Your task to perform on an android device: turn on translation in the chrome app Image 0: 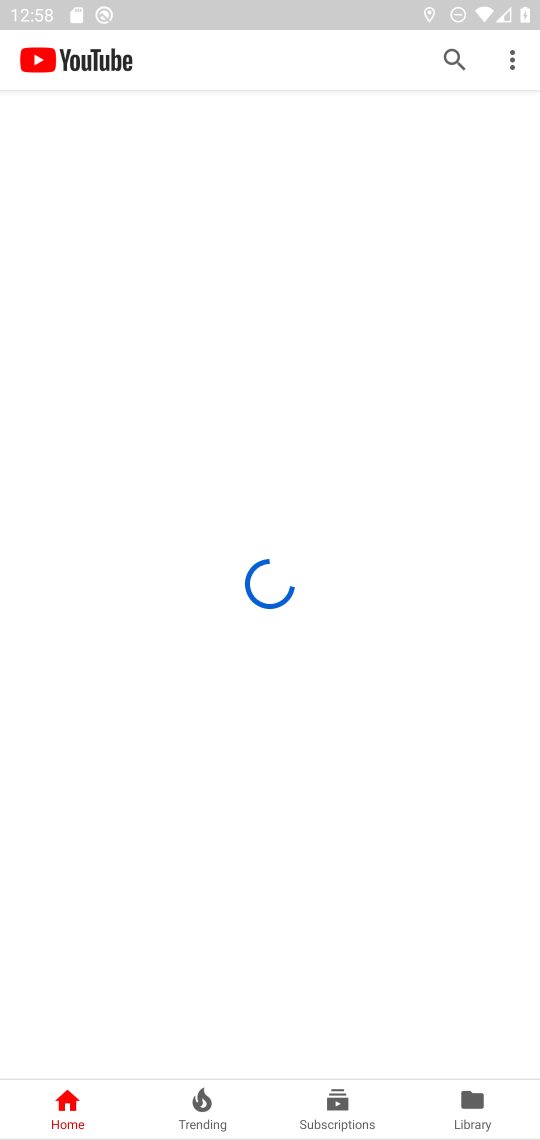
Step 0: press home button
Your task to perform on an android device: turn on translation in the chrome app Image 1: 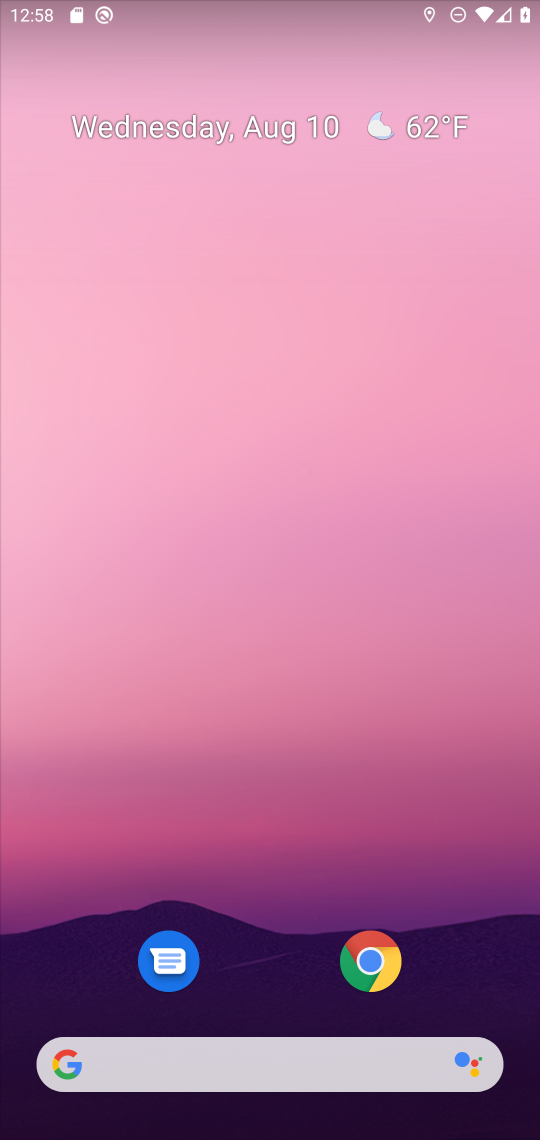
Step 1: click (379, 961)
Your task to perform on an android device: turn on translation in the chrome app Image 2: 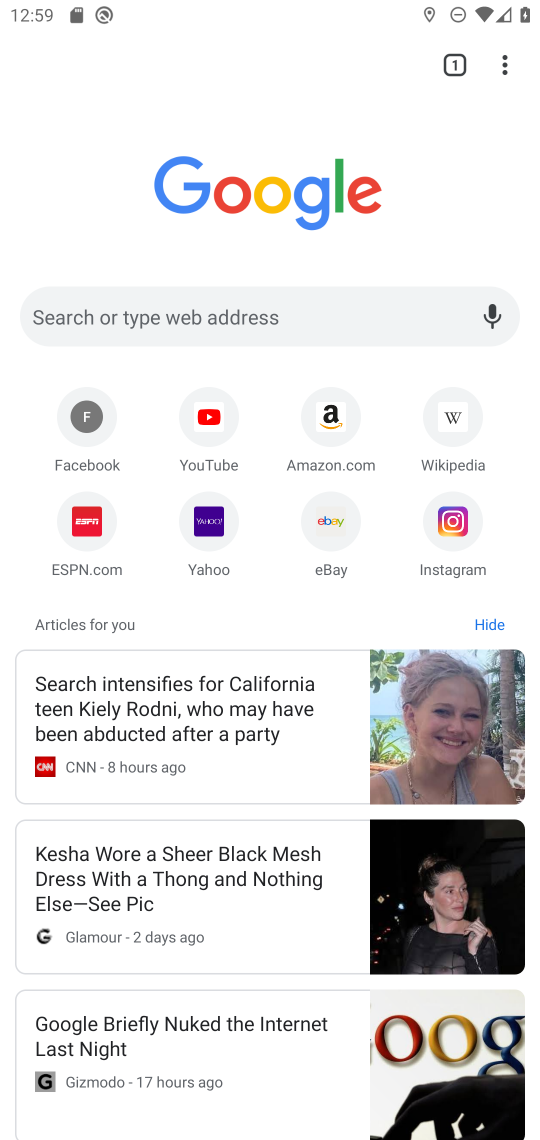
Step 2: click (506, 65)
Your task to perform on an android device: turn on translation in the chrome app Image 3: 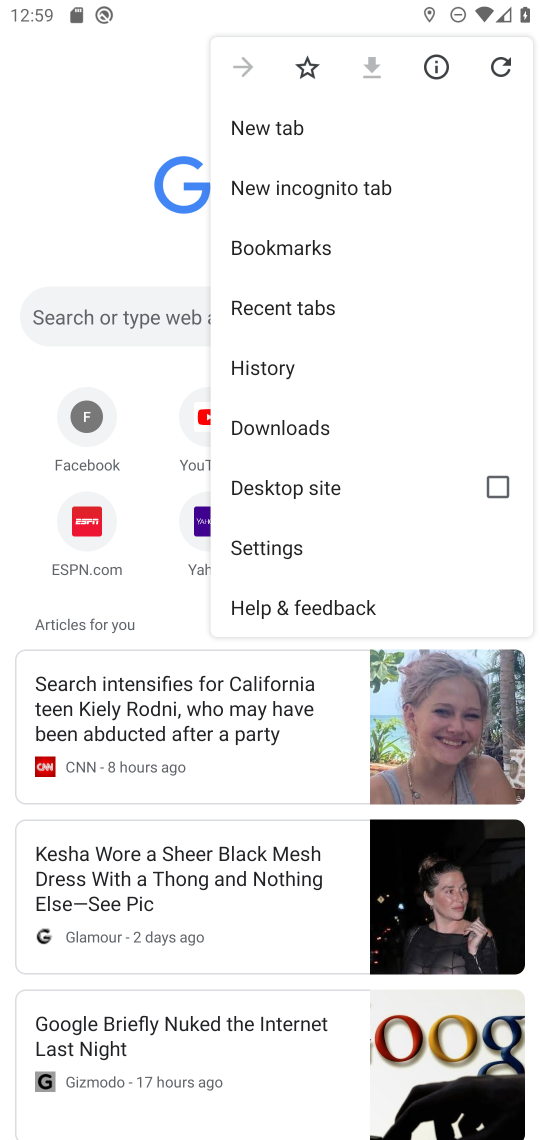
Step 3: click (275, 537)
Your task to perform on an android device: turn on translation in the chrome app Image 4: 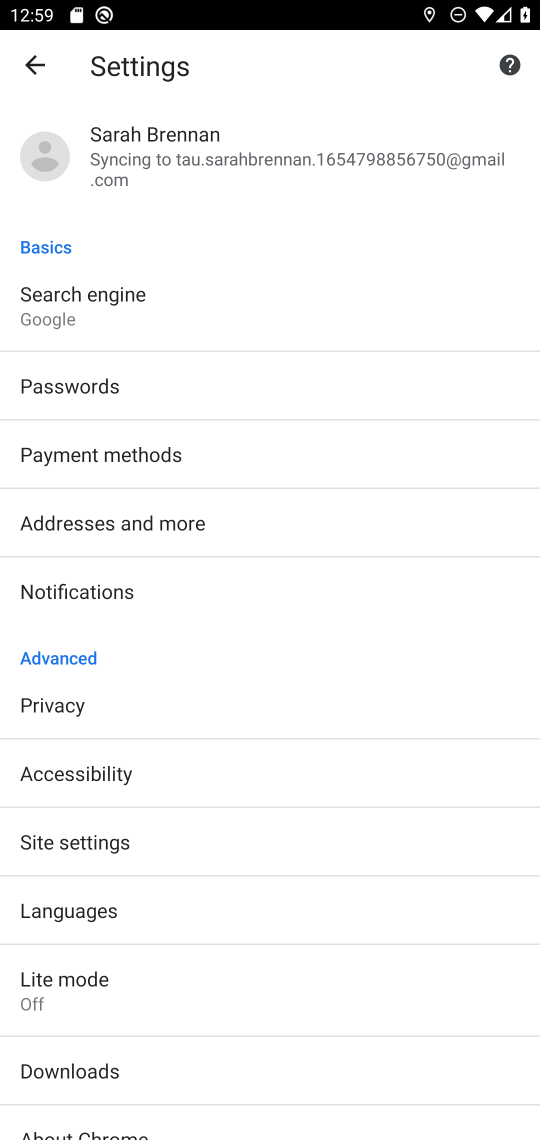
Step 4: click (87, 900)
Your task to perform on an android device: turn on translation in the chrome app Image 5: 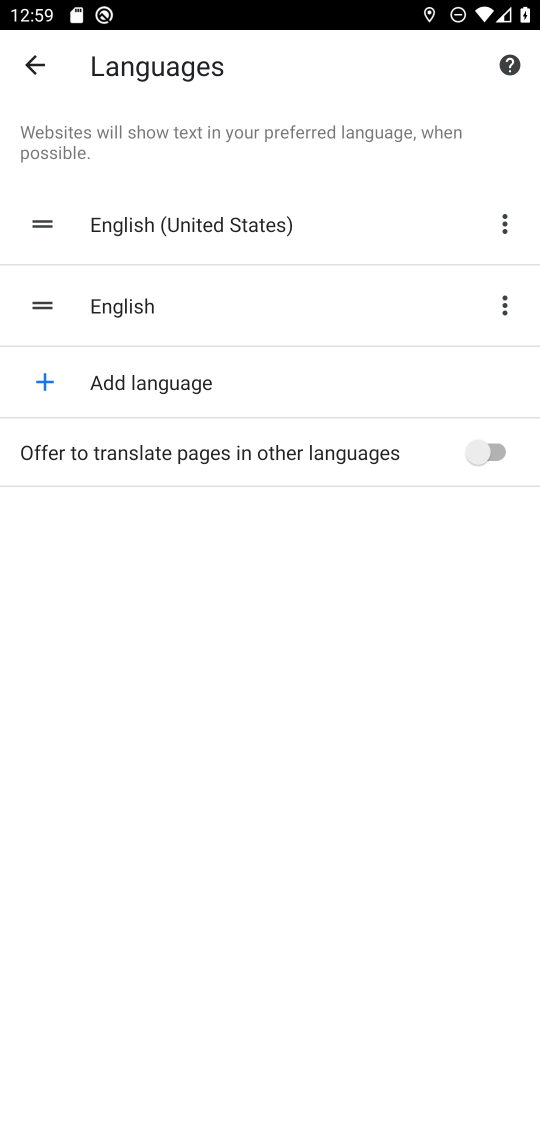
Step 5: click (480, 454)
Your task to perform on an android device: turn on translation in the chrome app Image 6: 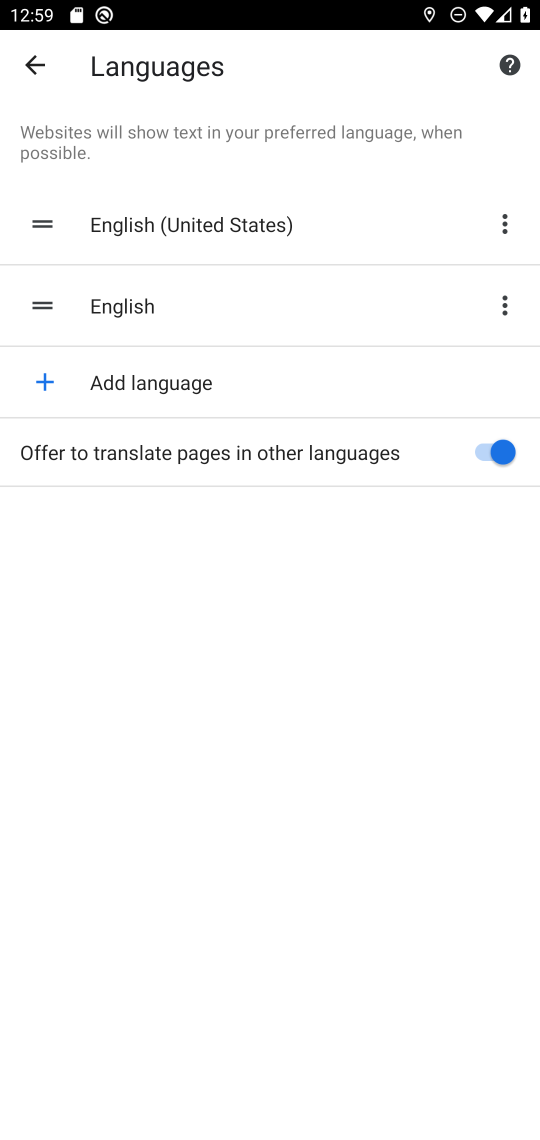
Step 6: task complete